Your task to perform on an android device: Open internet settings Image 0: 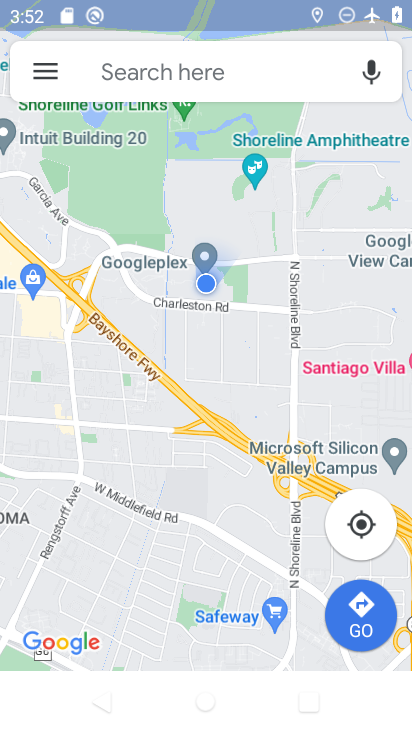
Step 0: press home button
Your task to perform on an android device: Open internet settings Image 1: 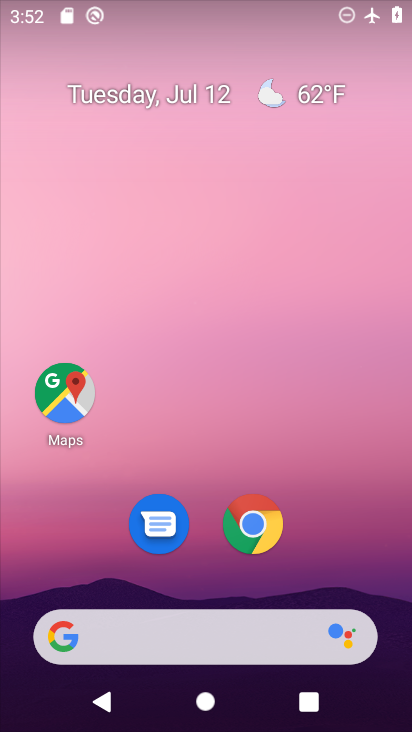
Step 1: drag from (334, 548) to (332, 43)
Your task to perform on an android device: Open internet settings Image 2: 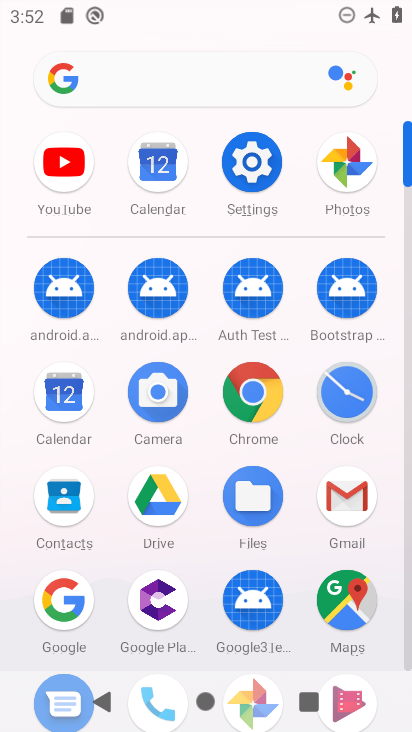
Step 2: click (247, 170)
Your task to perform on an android device: Open internet settings Image 3: 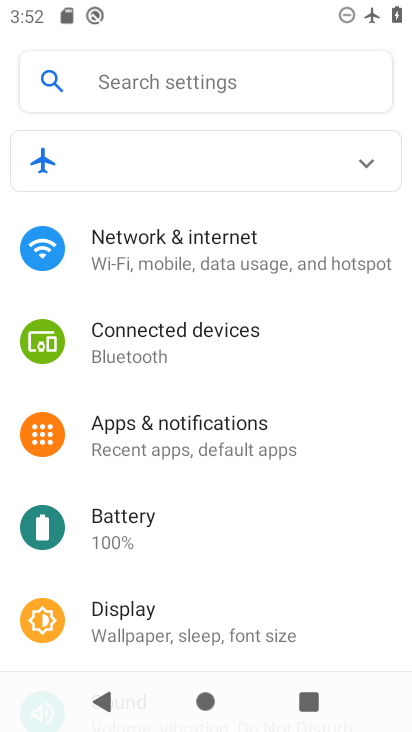
Step 3: click (189, 237)
Your task to perform on an android device: Open internet settings Image 4: 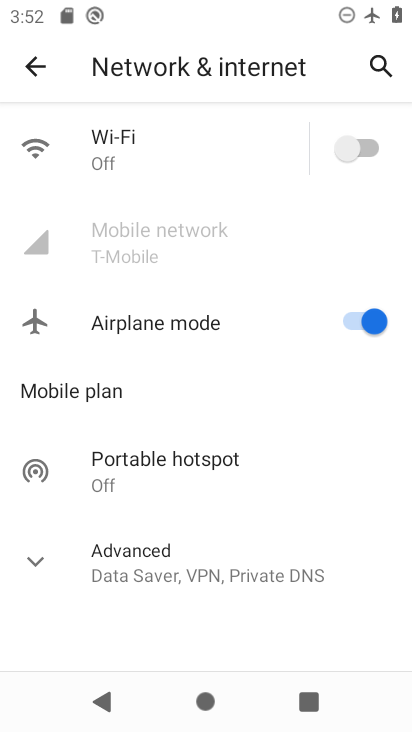
Step 4: task complete